Your task to perform on an android device: search for starred emails in the gmail app Image 0: 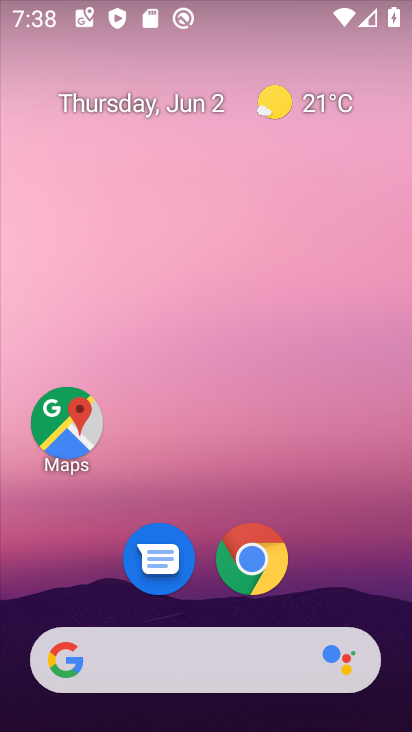
Step 0: drag from (325, 510) to (213, 157)
Your task to perform on an android device: search for starred emails in the gmail app Image 1: 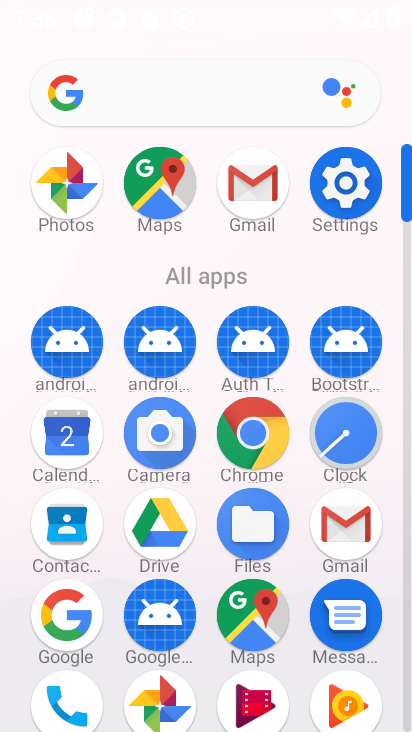
Step 1: click (250, 196)
Your task to perform on an android device: search for starred emails in the gmail app Image 2: 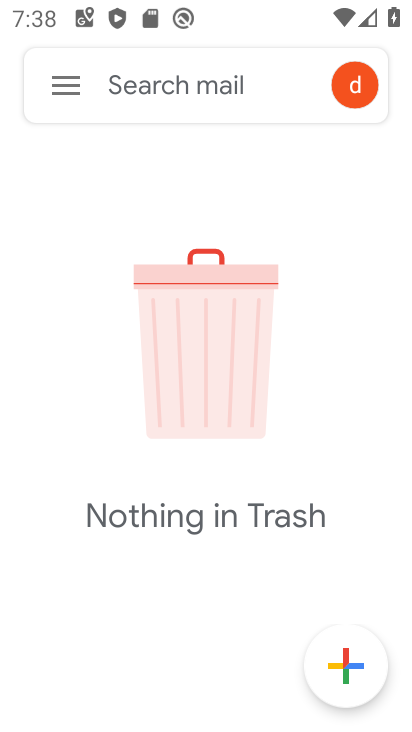
Step 2: click (63, 85)
Your task to perform on an android device: search for starred emails in the gmail app Image 3: 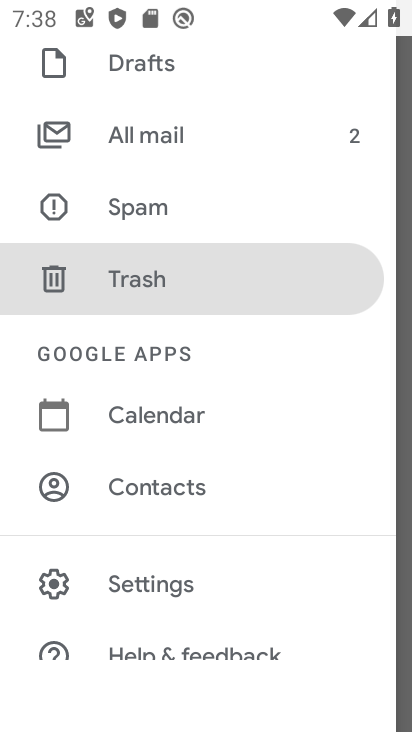
Step 3: drag from (145, 171) to (128, 484)
Your task to perform on an android device: search for starred emails in the gmail app Image 4: 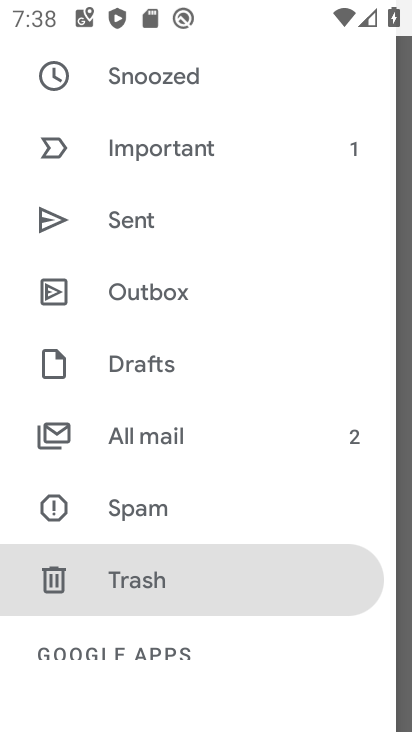
Step 4: drag from (178, 191) to (183, 537)
Your task to perform on an android device: search for starred emails in the gmail app Image 5: 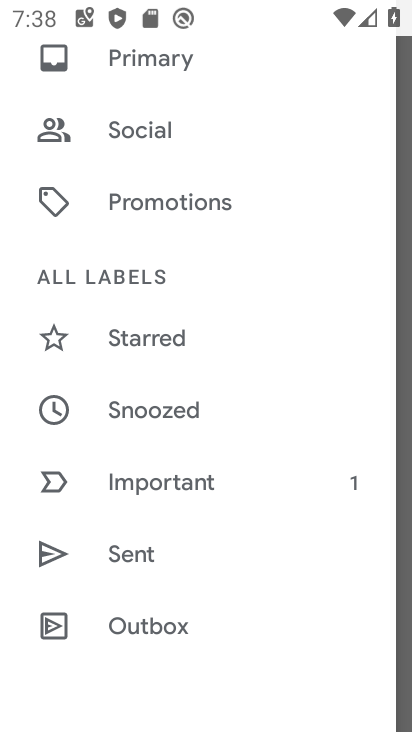
Step 5: click (141, 331)
Your task to perform on an android device: search for starred emails in the gmail app Image 6: 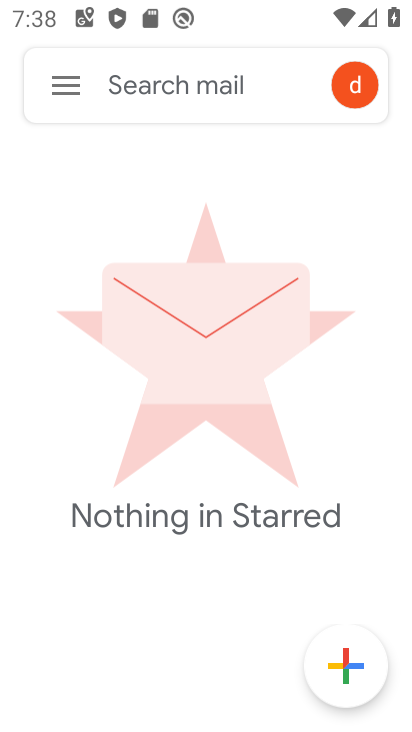
Step 6: task complete